Your task to perform on an android device: search for starred emails in the gmail app Image 0: 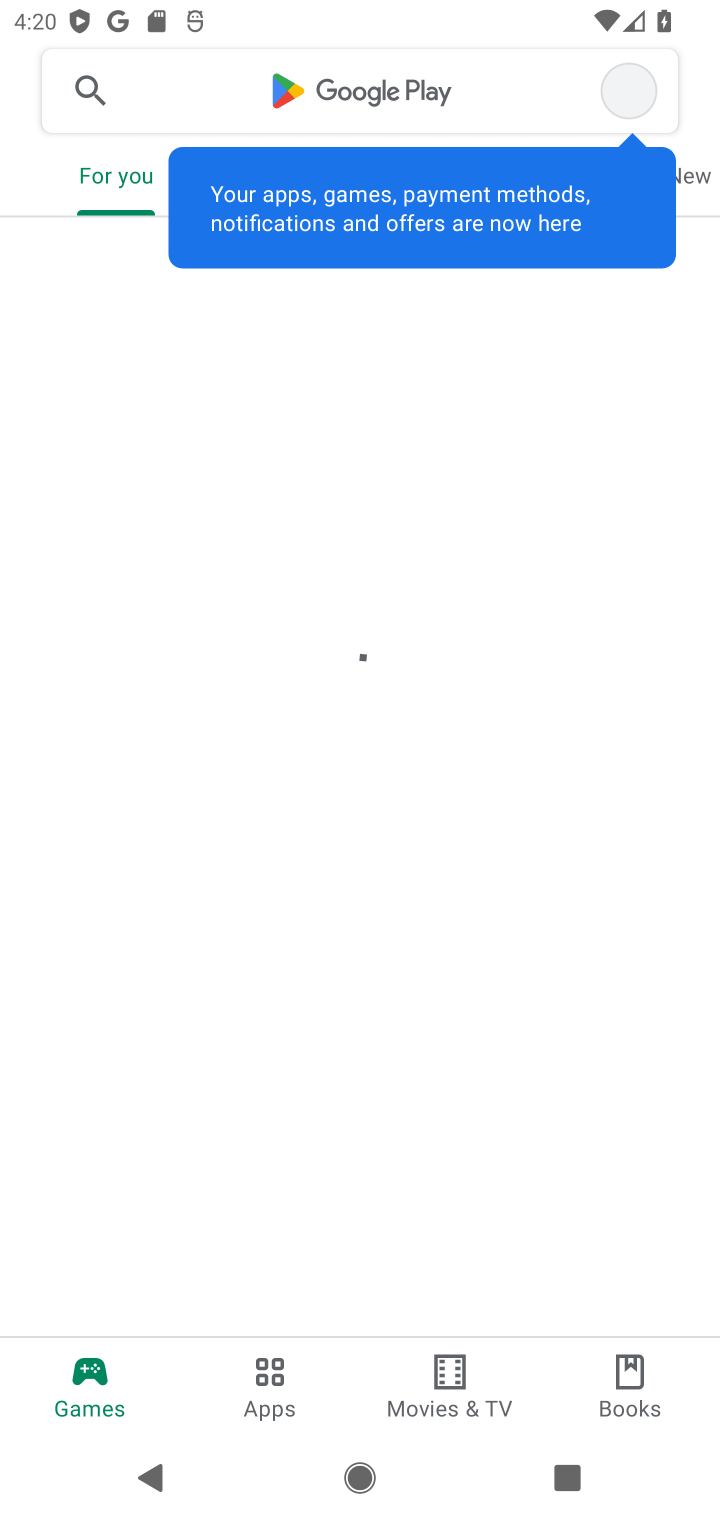
Step 0: press home button
Your task to perform on an android device: search for starred emails in the gmail app Image 1: 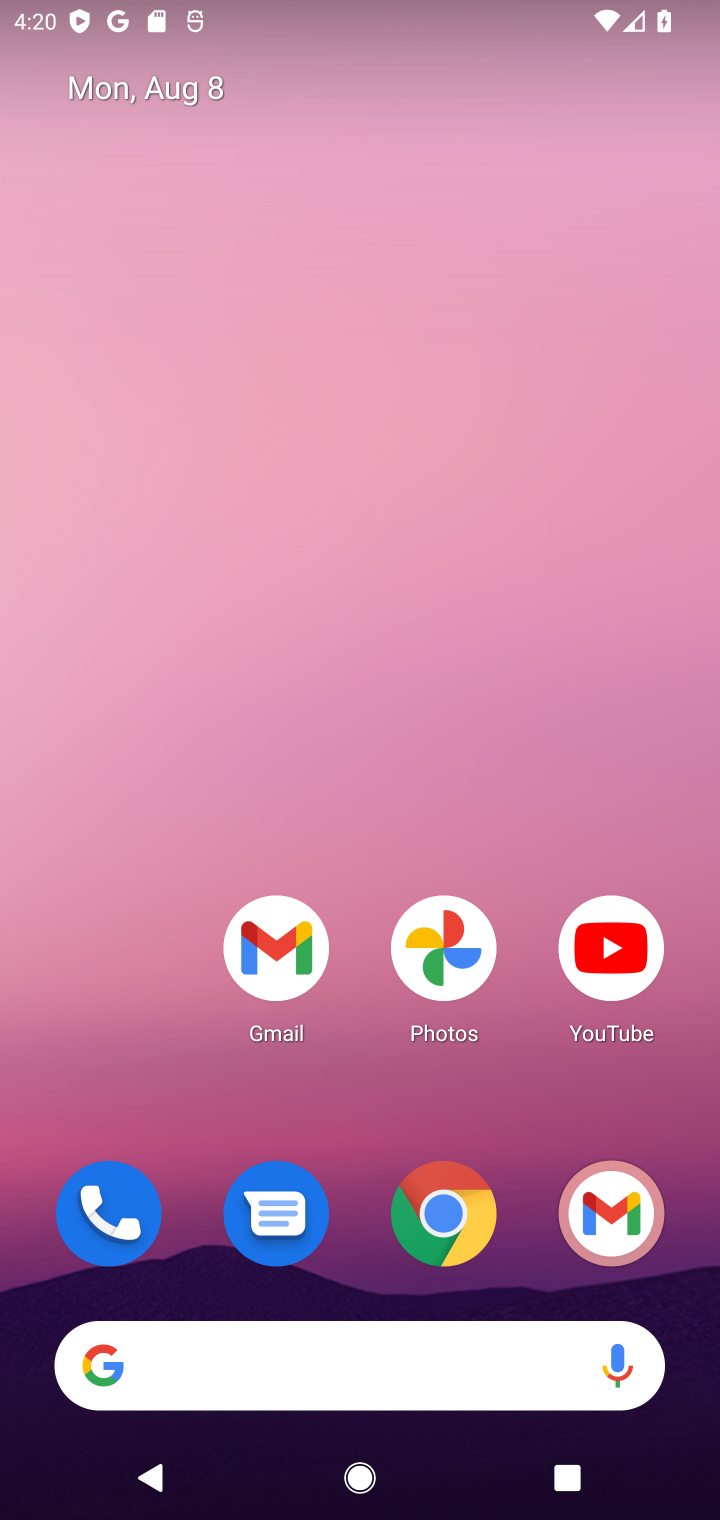
Step 1: click (287, 952)
Your task to perform on an android device: search for starred emails in the gmail app Image 2: 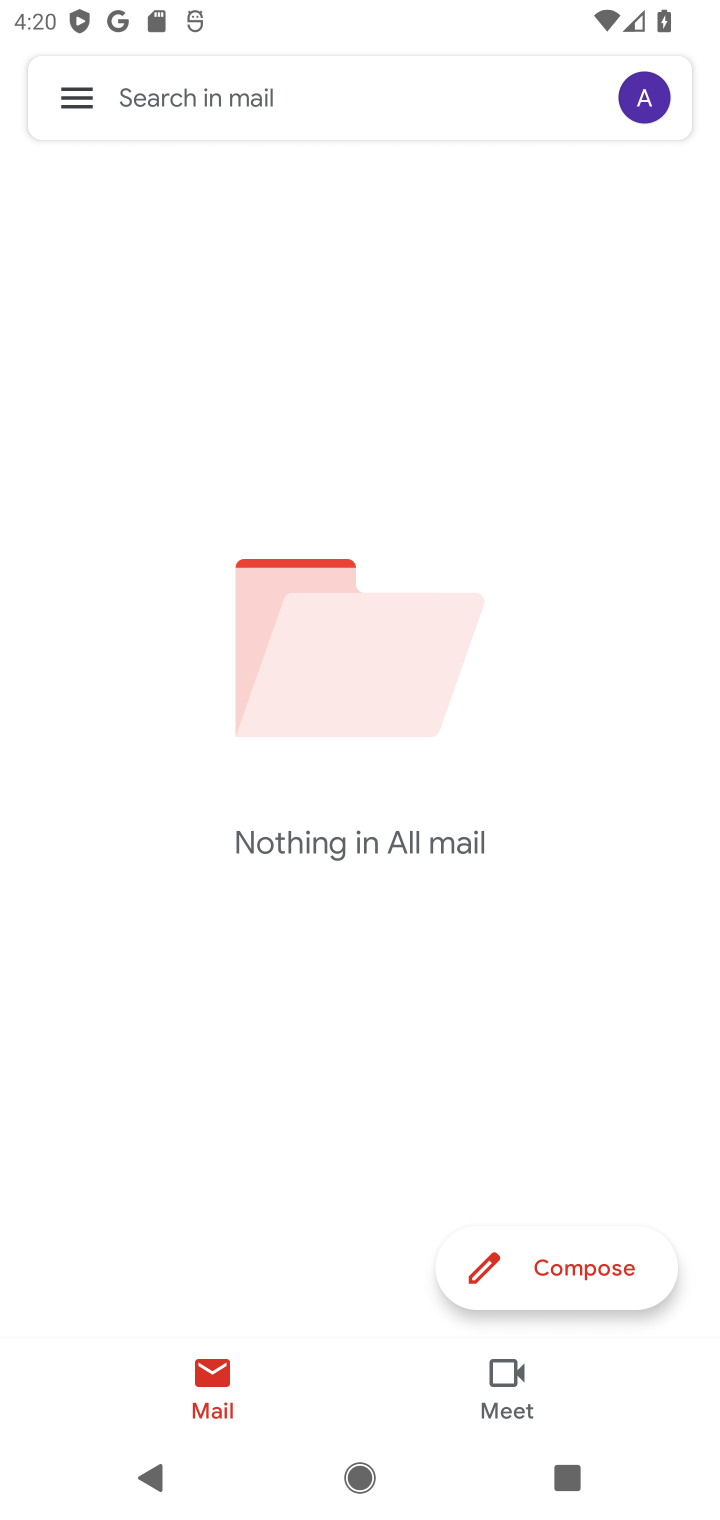
Step 2: click (70, 83)
Your task to perform on an android device: search for starred emails in the gmail app Image 3: 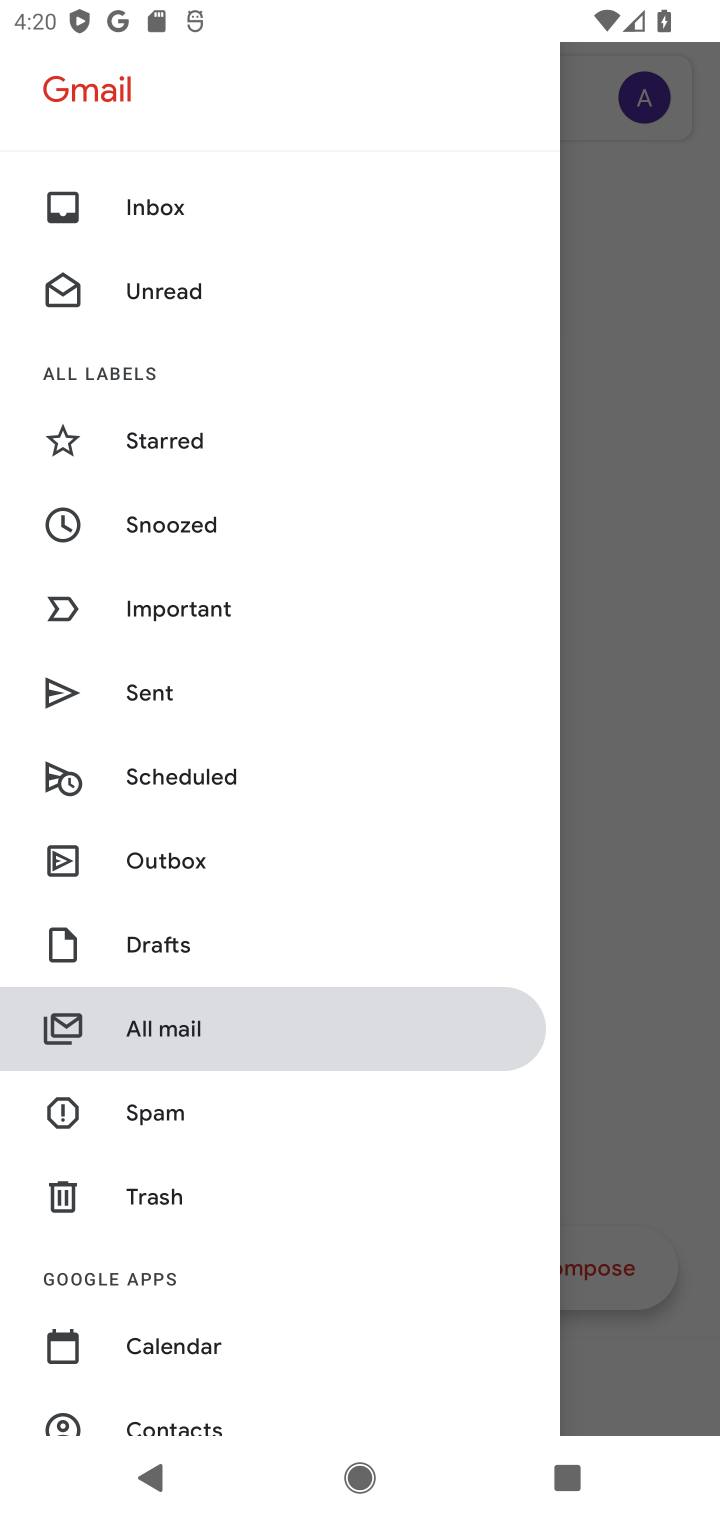
Step 3: click (196, 461)
Your task to perform on an android device: search for starred emails in the gmail app Image 4: 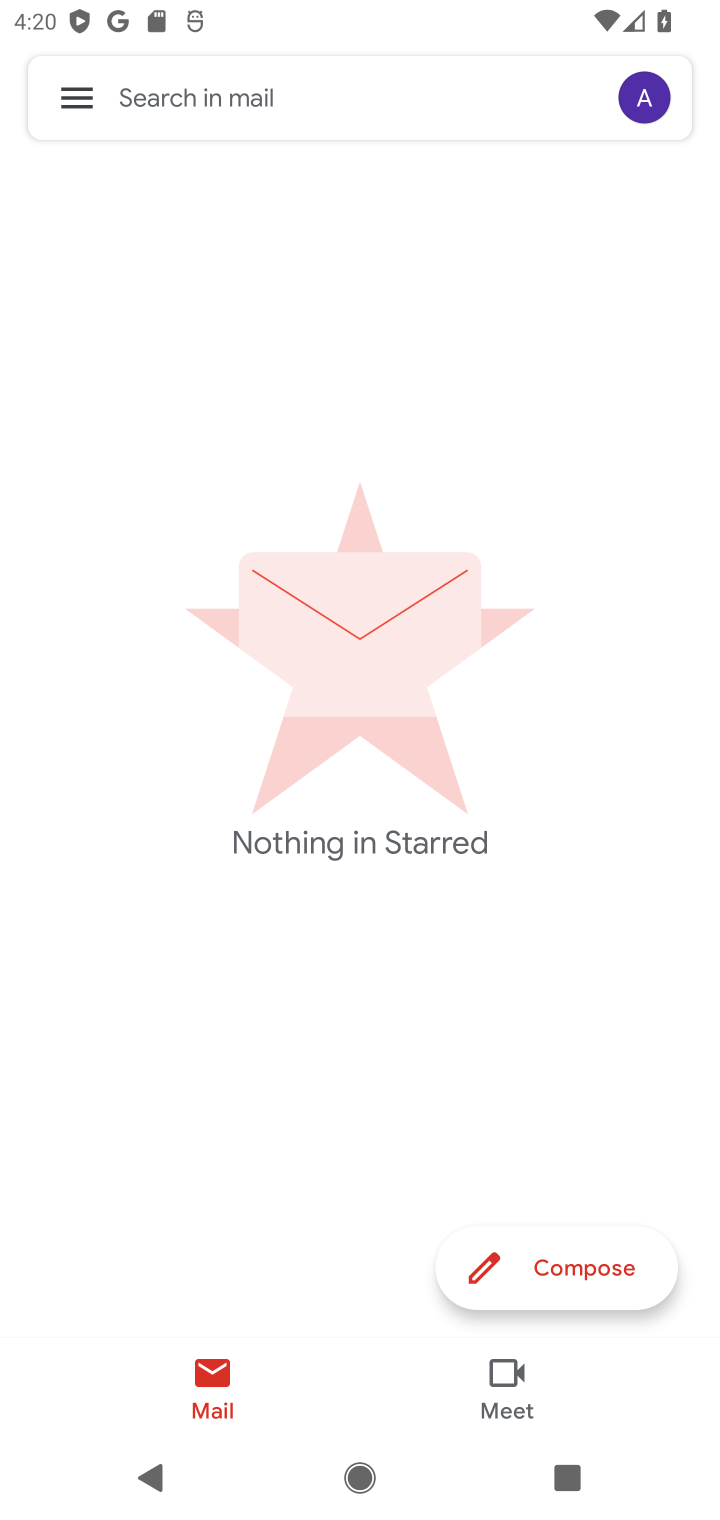
Step 4: task complete